Your task to perform on an android device: turn notification dots on Image 0: 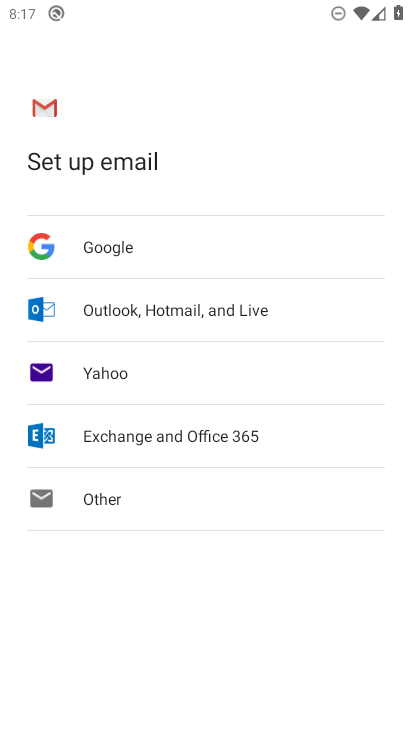
Step 0: press home button
Your task to perform on an android device: turn notification dots on Image 1: 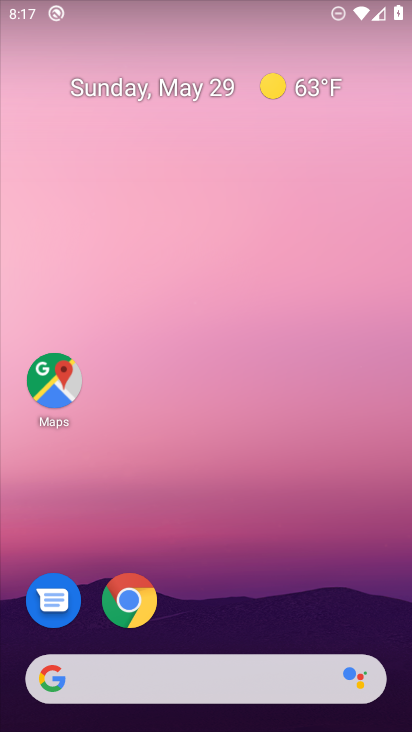
Step 1: drag from (156, 729) to (237, 67)
Your task to perform on an android device: turn notification dots on Image 2: 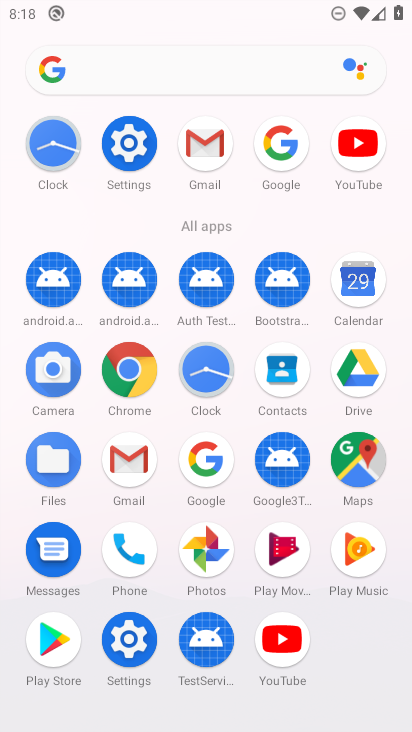
Step 2: click (135, 652)
Your task to perform on an android device: turn notification dots on Image 3: 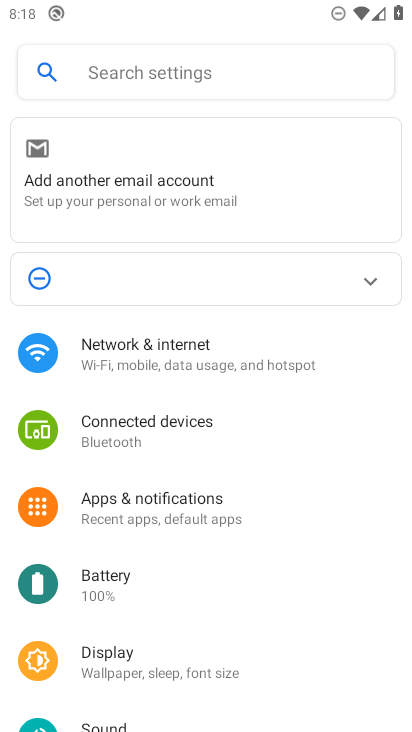
Step 3: click (179, 521)
Your task to perform on an android device: turn notification dots on Image 4: 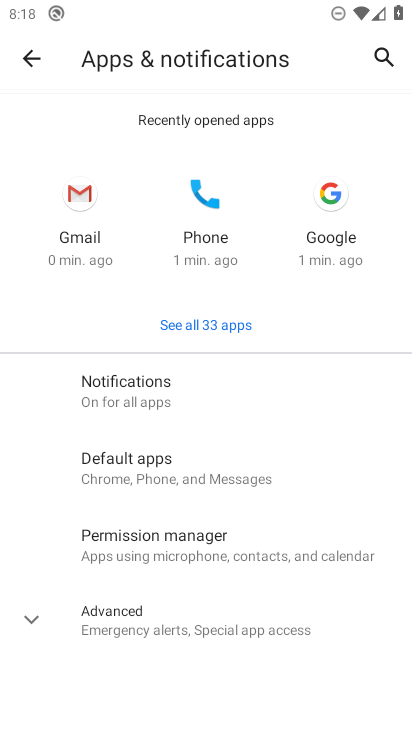
Step 4: click (165, 394)
Your task to perform on an android device: turn notification dots on Image 5: 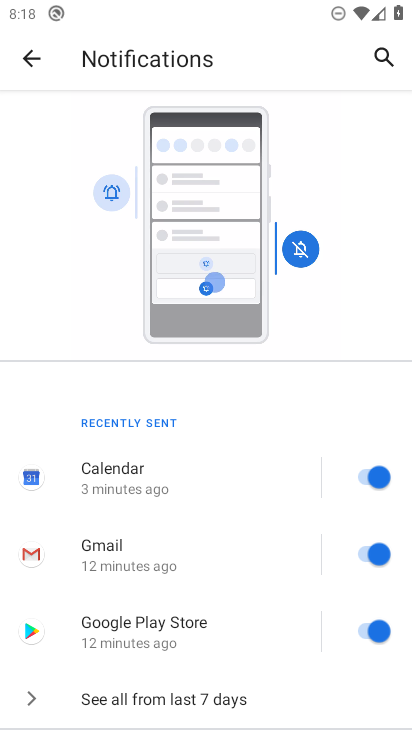
Step 5: drag from (336, 712) to (300, 359)
Your task to perform on an android device: turn notification dots on Image 6: 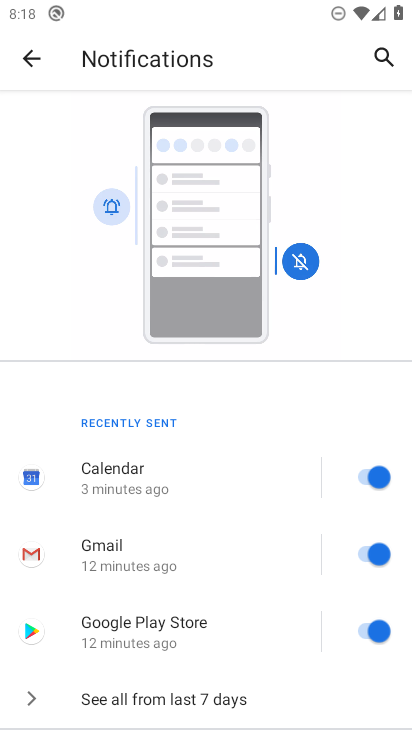
Step 6: drag from (259, 708) to (304, 259)
Your task to perform on an android device: turn notification dots on Image 7: 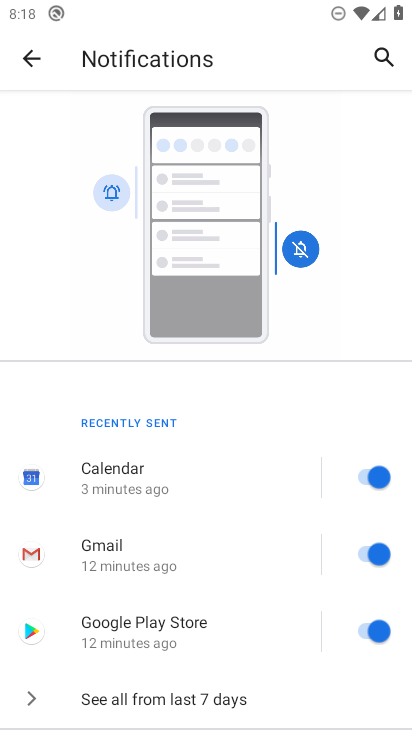
Step 7: drag from (288, 716) to (286, 389)
Your task to perform on an android device: turn notification dots on Image 8: 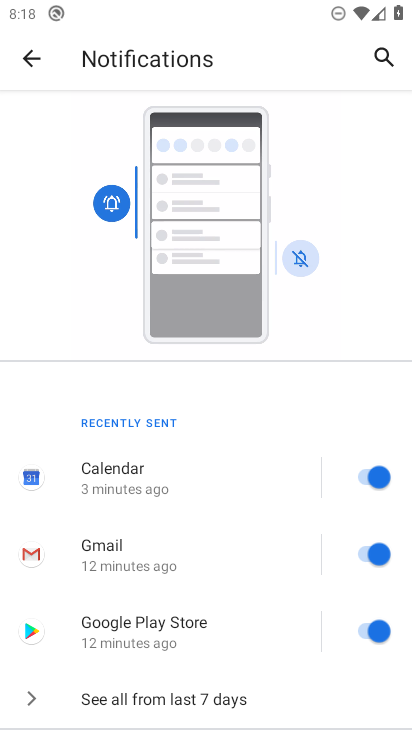
Step 8: drag from (306, 710) to (309, 252)
Your task to perform on an android device: turn notification dots on Image 9: 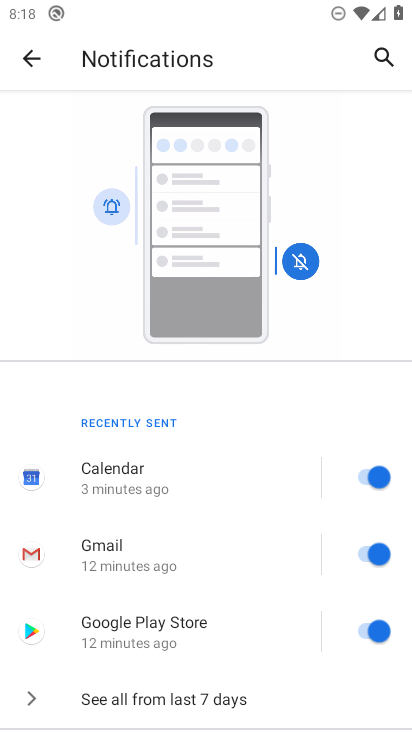
Step 9: drag from (280, 697) to (377, 228)
Your task to perform on an android device: turn notification dots on Image 10: 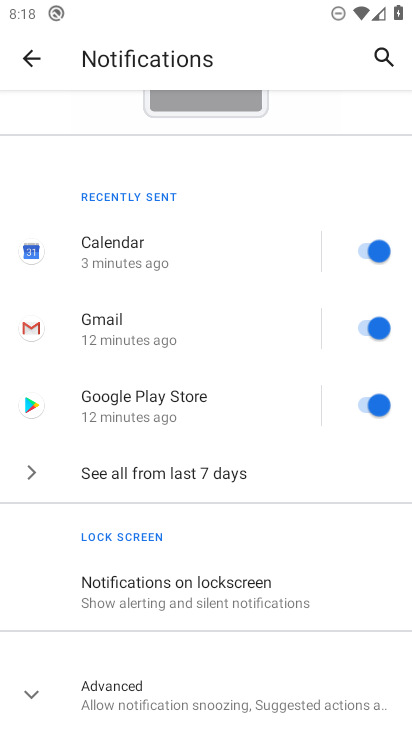
Step 10: click (238, 707)
Your task to perform on an android device: turn notification dots on Image 11: 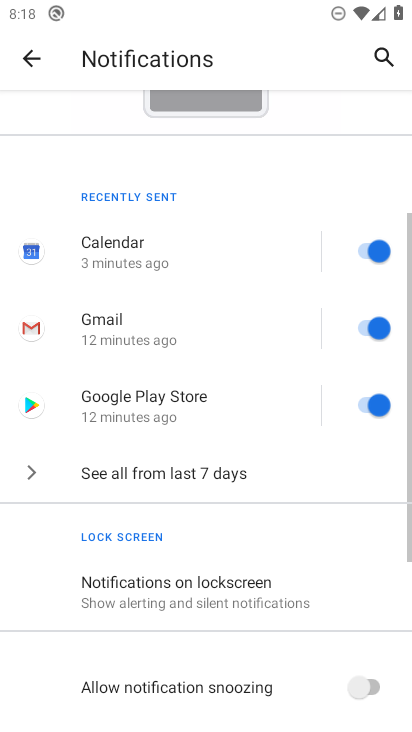
Step 11: task complete